Your task to perform on an android device: open a bookmark in the chrome app Image 0: 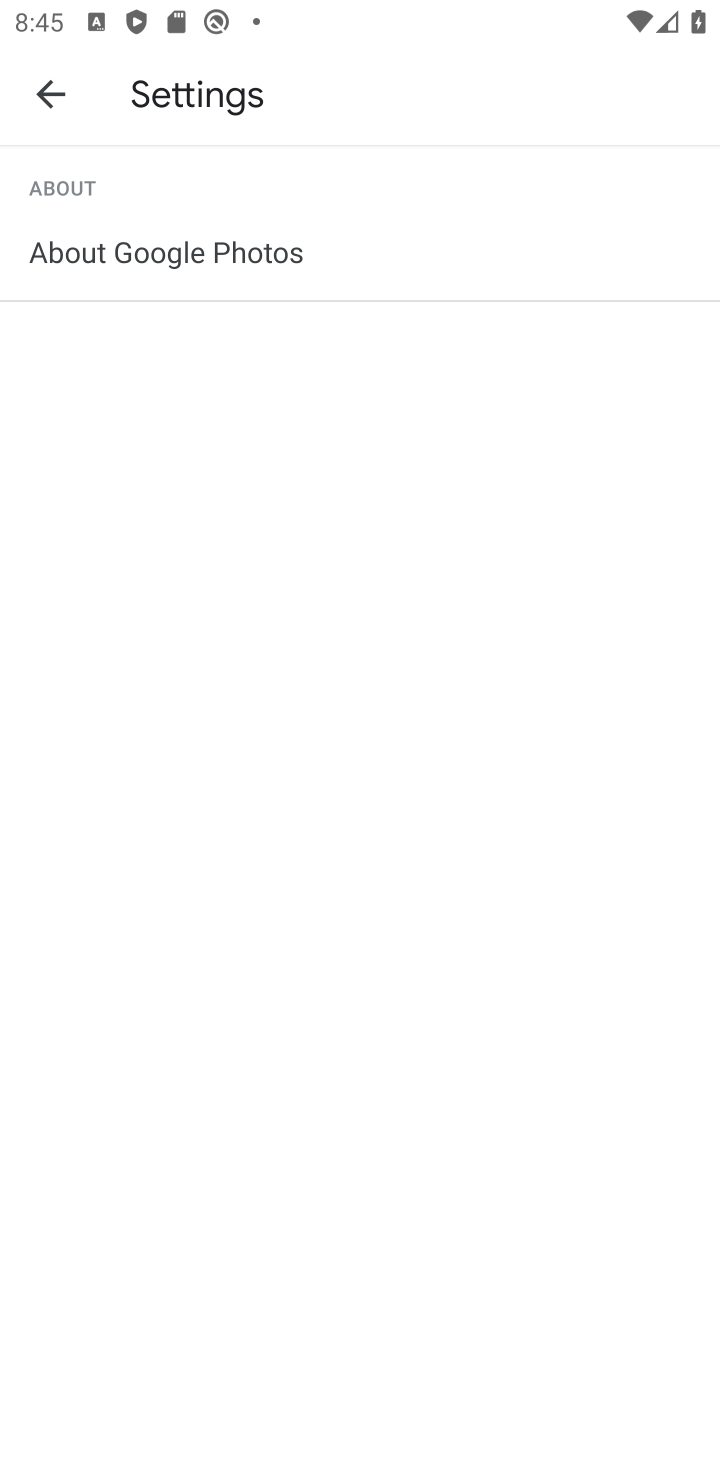
Step 0: press home button
Your task to perform on an android device: open a bookmark in the chrome app Image 1: 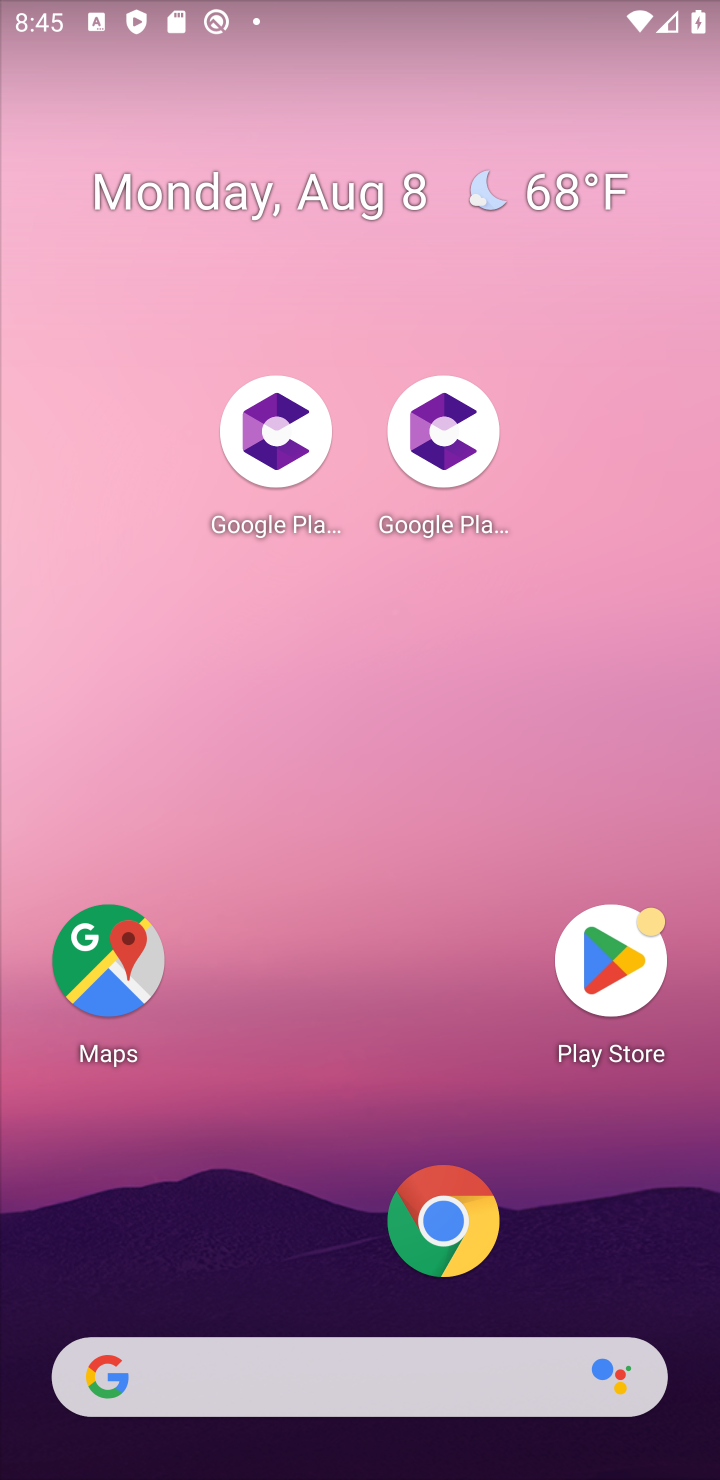
Step 1: click (463, 1182)
Your task to perform on an android device: open a bookmark in the chrome app Image 2: 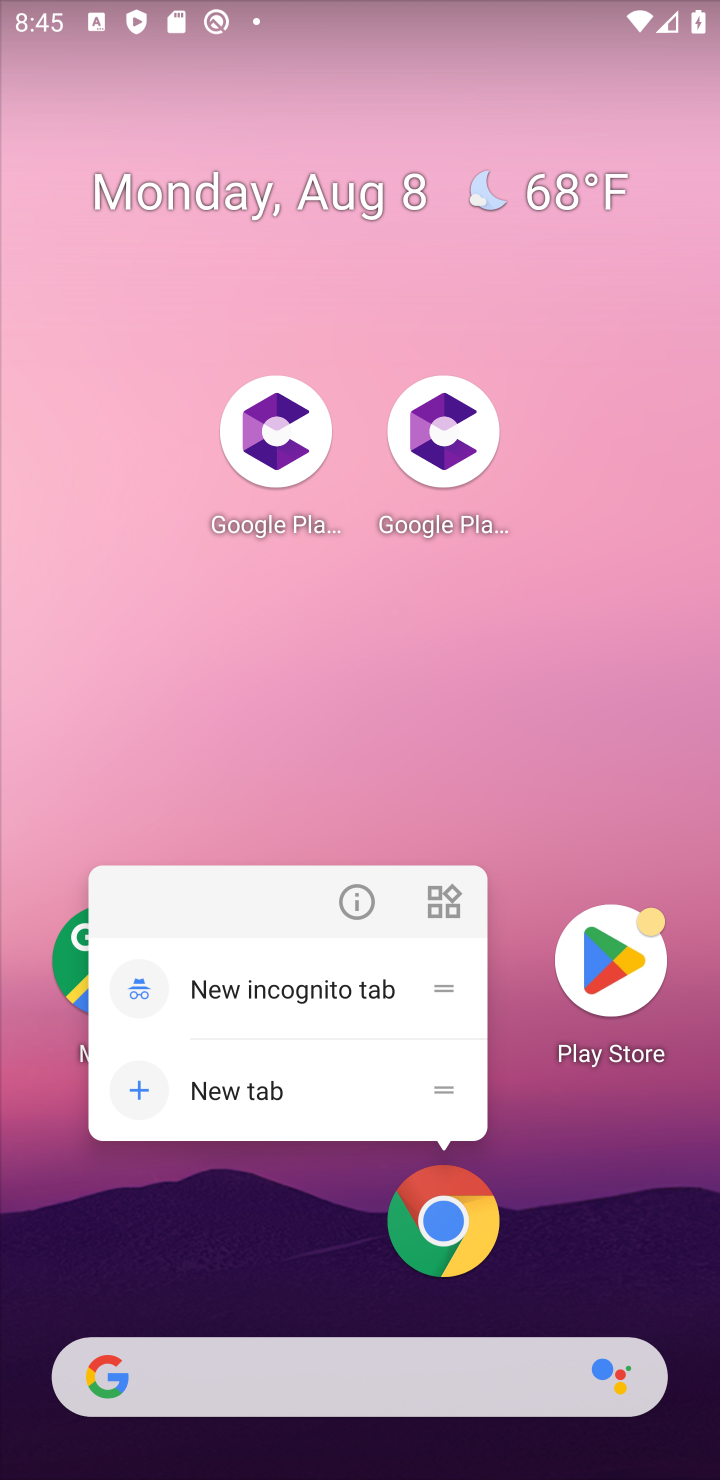
Step 2: click (447, 1228)
Your task to perform on an android device: open a bookmark in the chrome app Image 3: 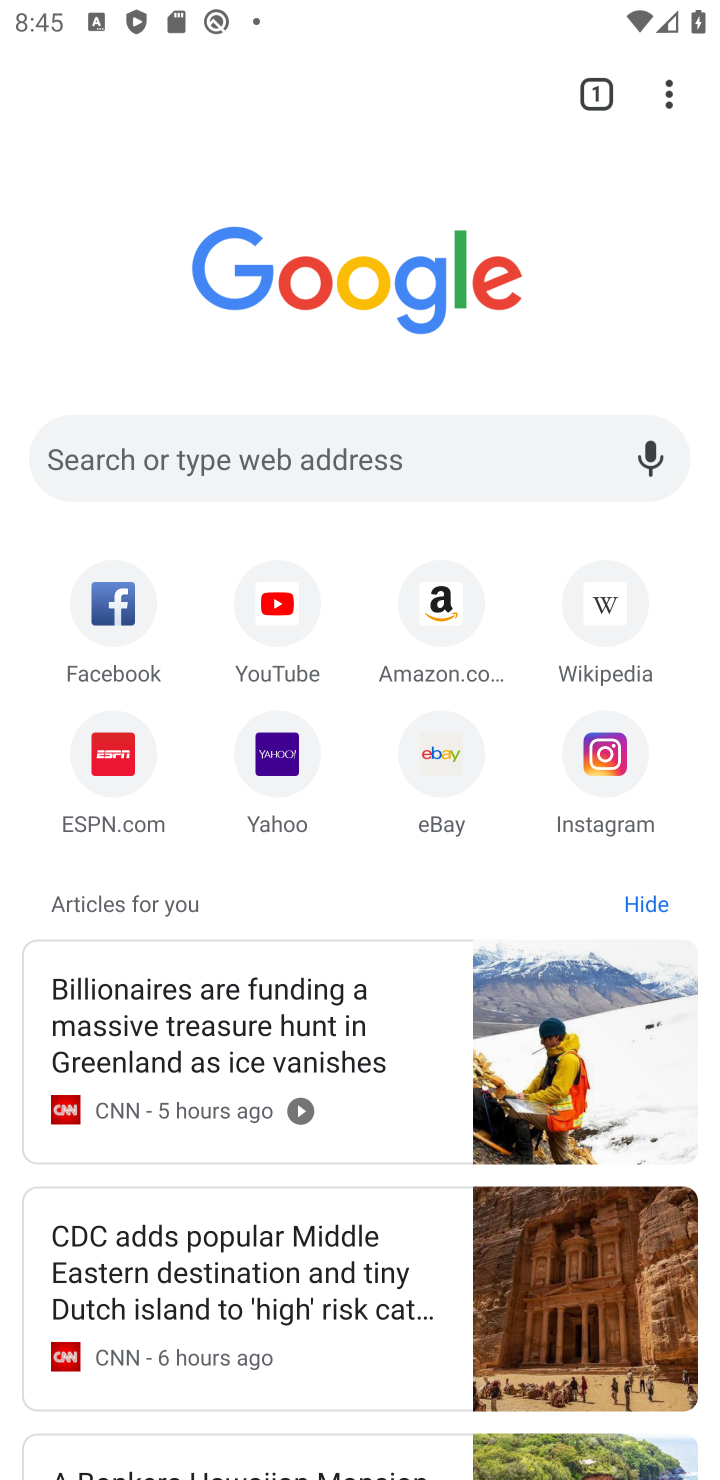
Step 3: click (686, 90)
Your task to perform on an android device: open a bookmark in the chrome app Image 4: 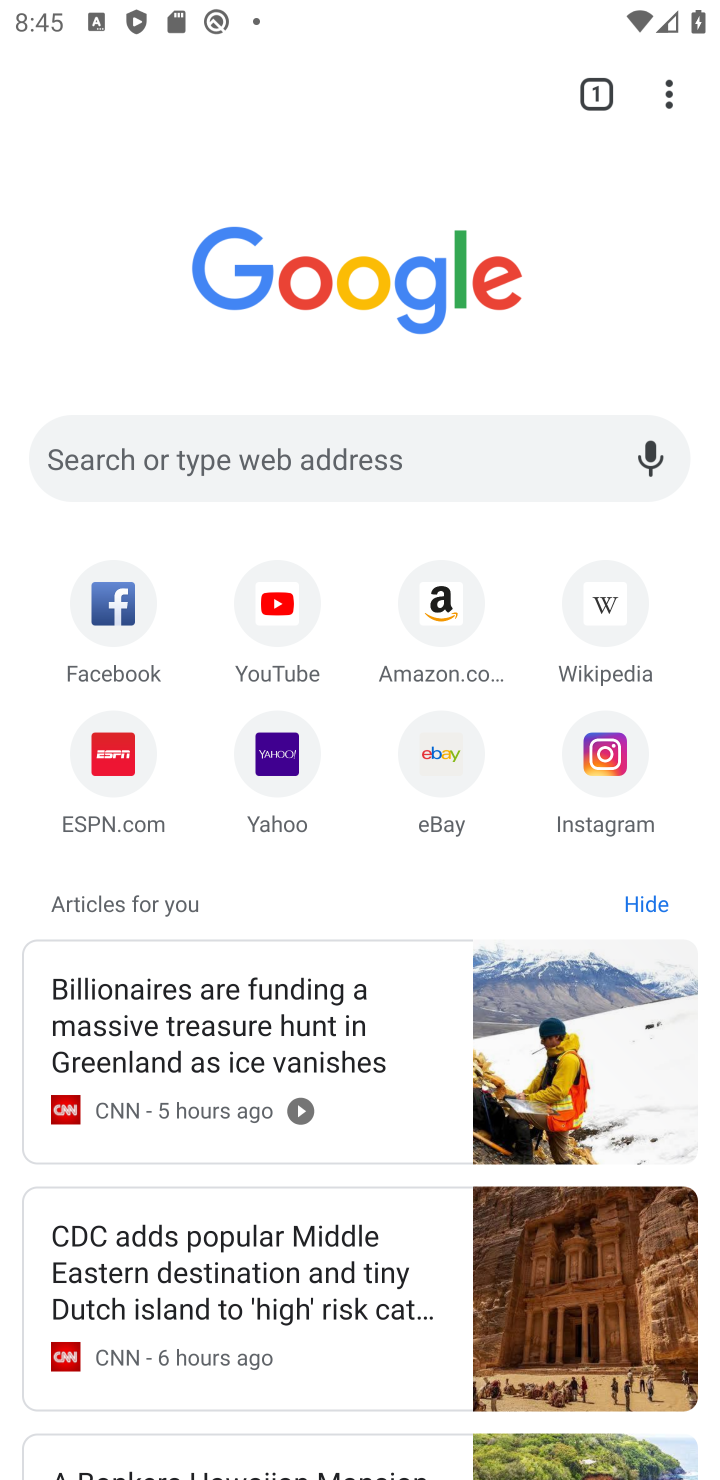
Step 4: click (686, 90)
Your task to perform on an android device: open a bookmark in the chrome app Image 5: 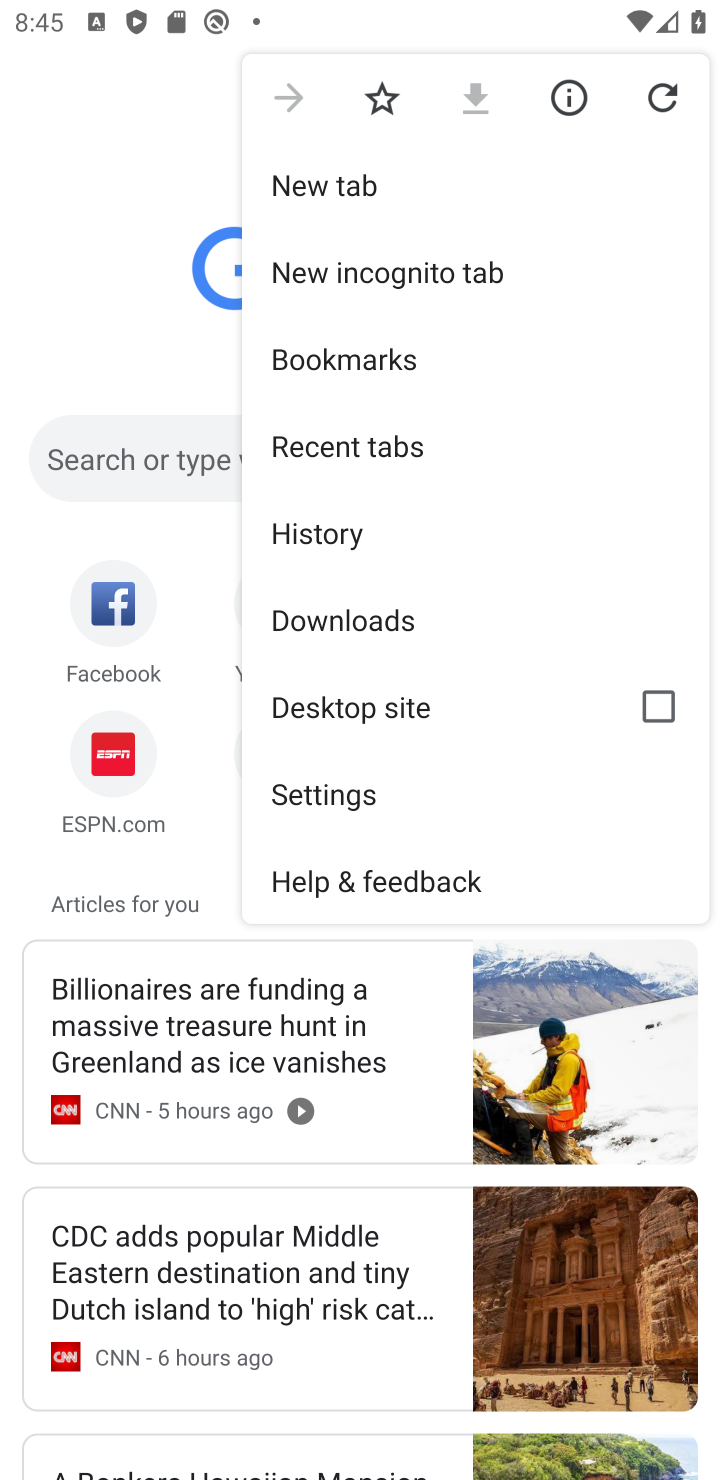
Step 5: click (393, 382)
Your task to perform on an android device: open a bookmark in the chrome app Image 6: 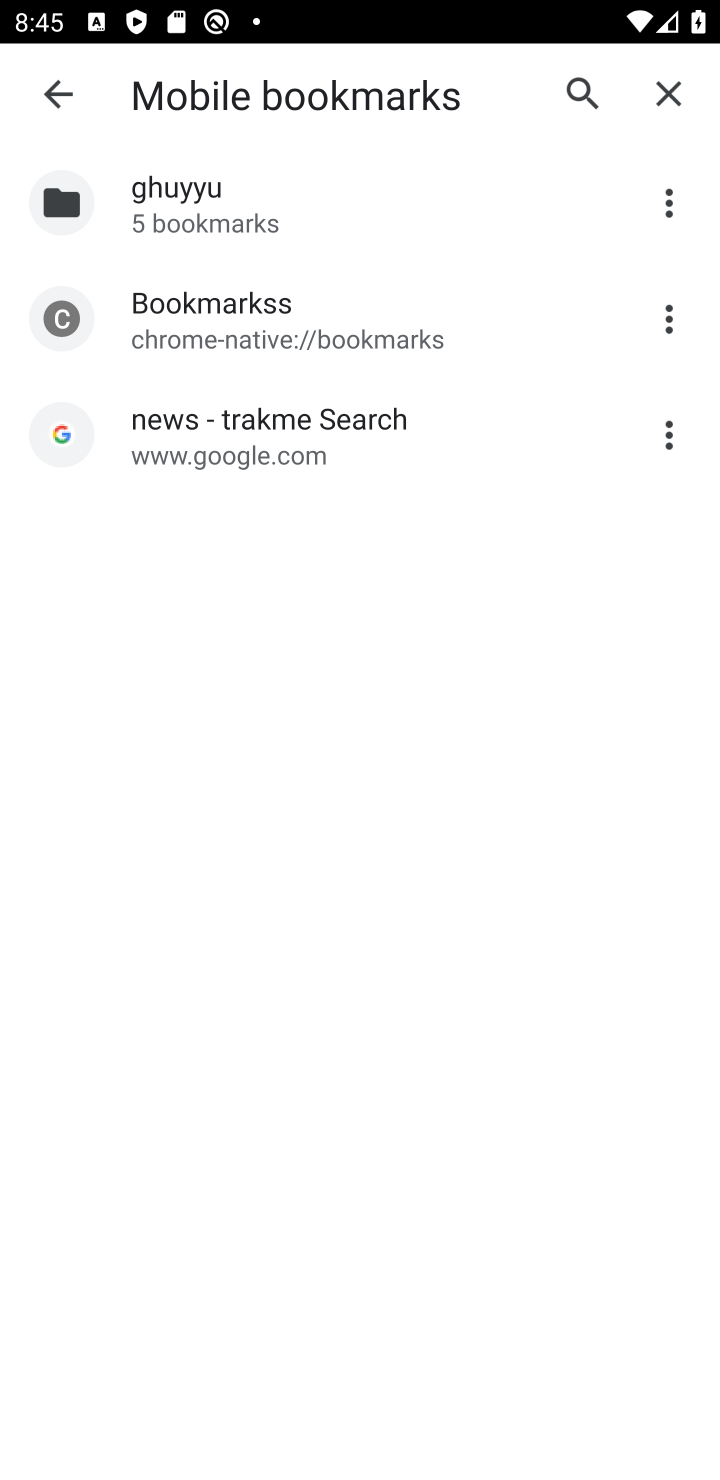
Step 6: click (209, 207)
Your task to perform on an android device: open a bookmark in the chrome app Image 7: 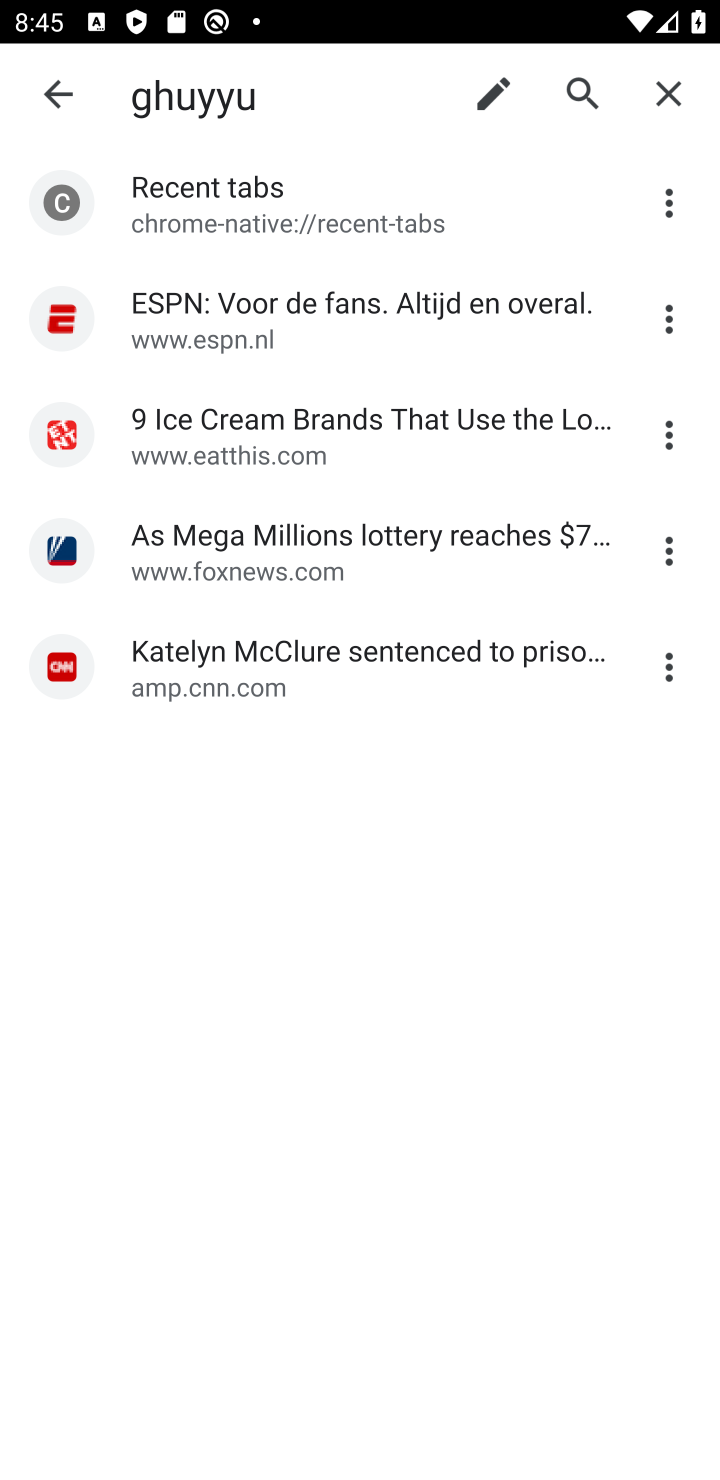
Step 7: click (303, 453)
Your task to perform on an android device: open a bookmark in the chrome app Image 8: 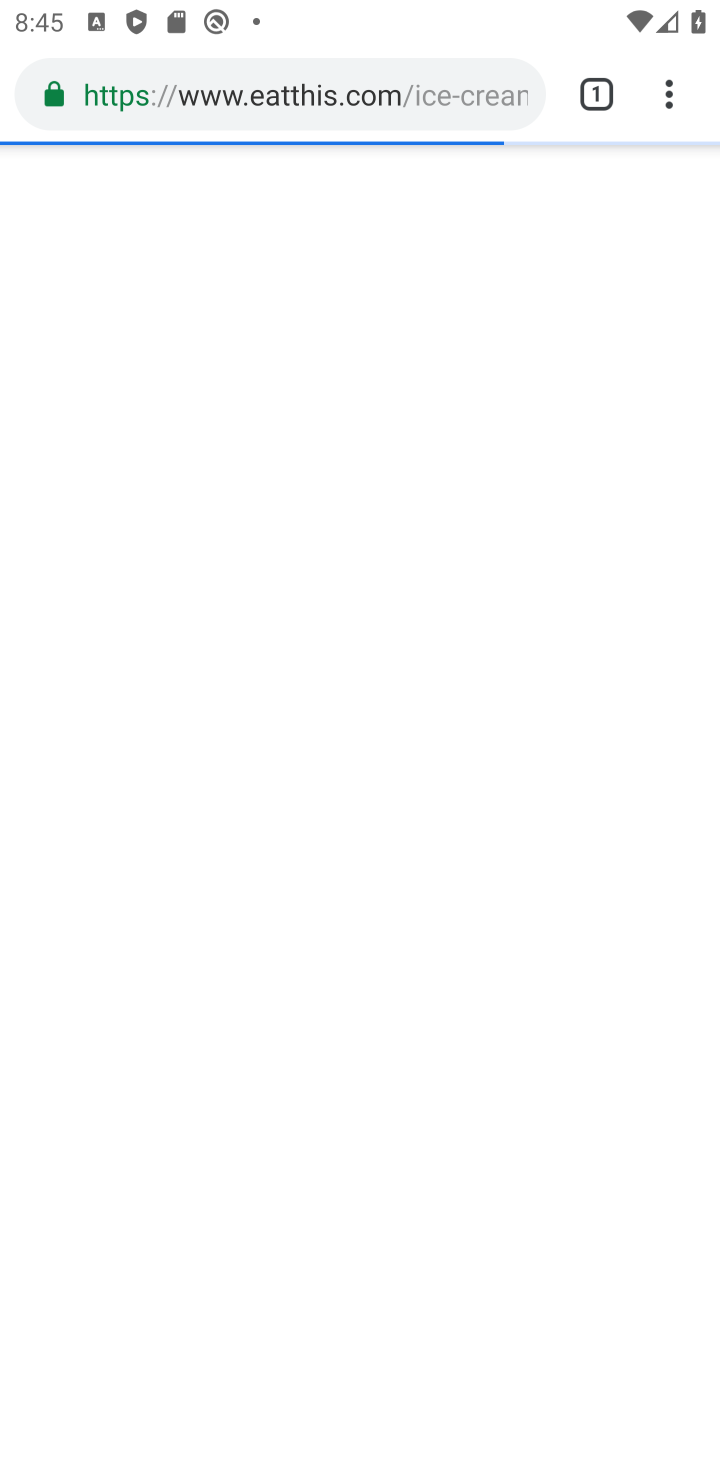
Step 8: click (421, 424)
Your task to perform on an android device: open a bookmark in the chrome app Image 9: 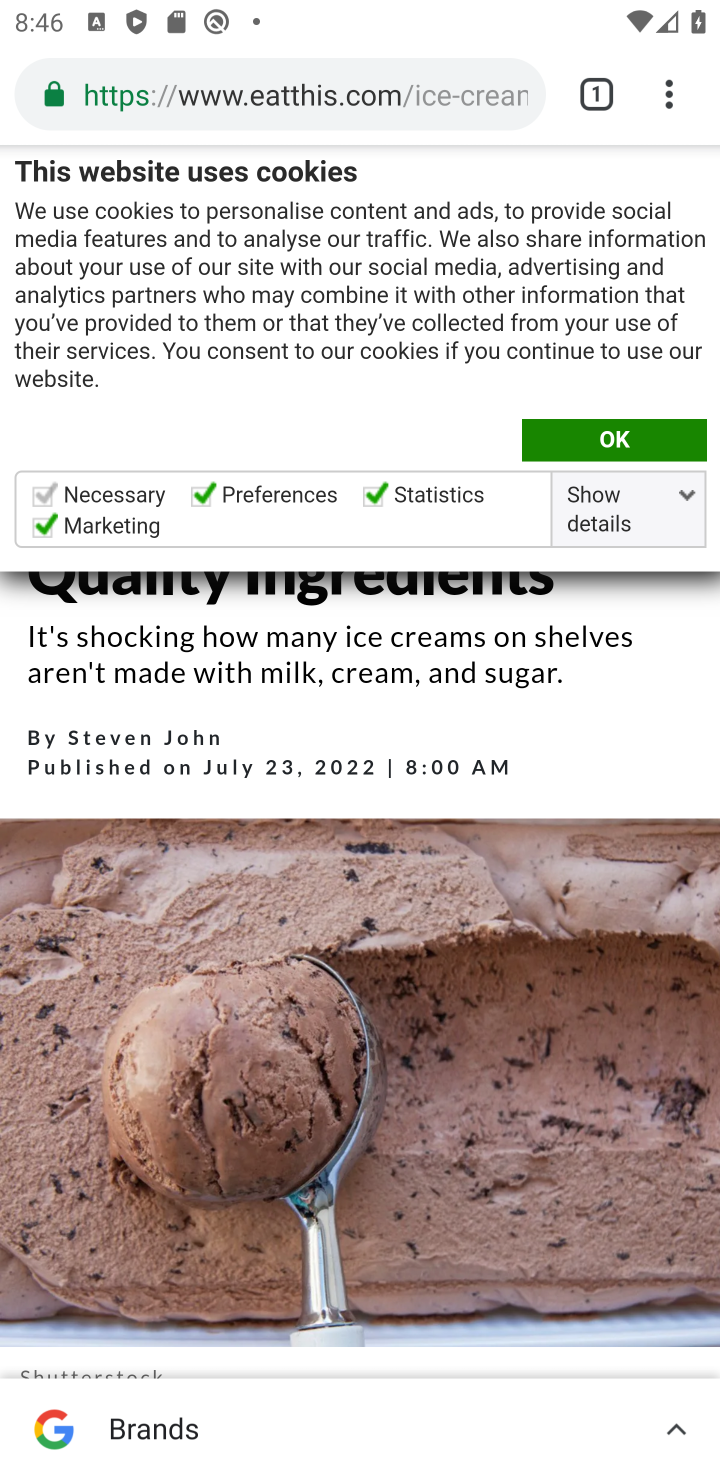
Step 9: task complete